Your task to perform on an android device: delete a single message in the gmail app Image 0: 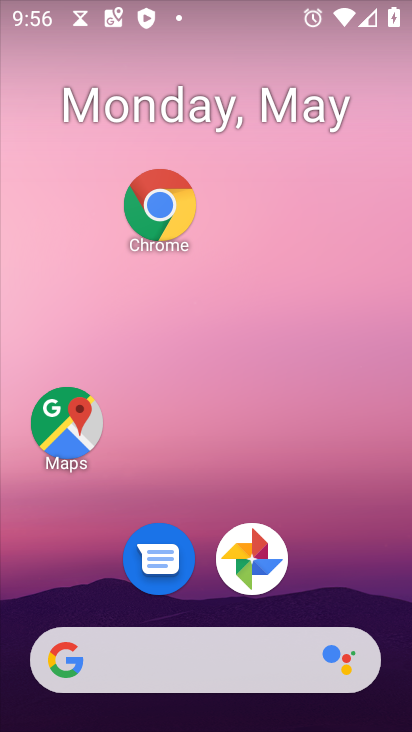
Step 0: drag from (273, 720) to (226, 58)
Your task to perform on an android device: delete a single message in the gmail app Image 1: 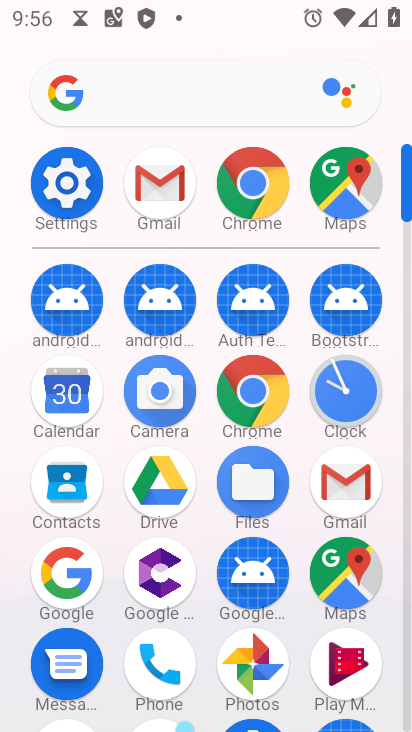
Step 1: click (345, 478)
Your task to perform on an android device: delete a single message in the gmail app Image 2: 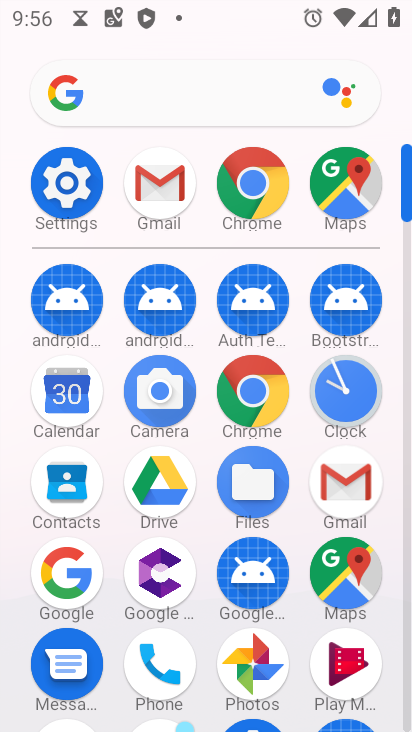
Step 2: click (345, 478)
Your task to perform on an android device: delete a single message in the gmail app Image 3: 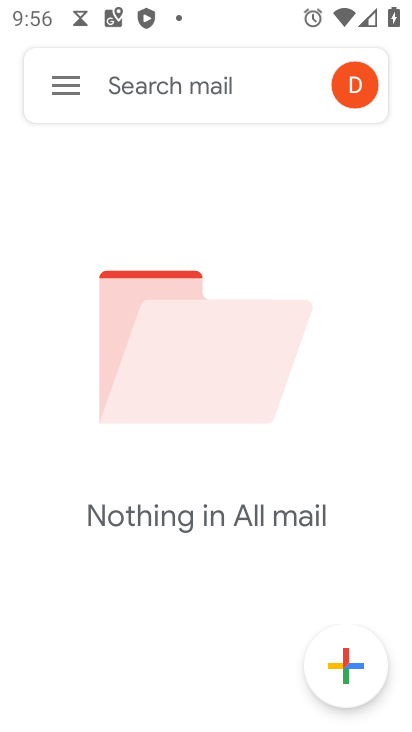
Step 3: press home button
Your task to perform on an android device: delete a single message in the gmail app Image 4: 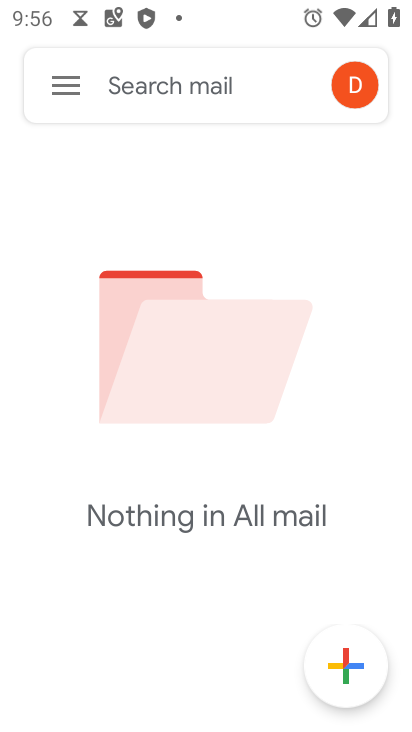
Step 4: press home button
Your task to perform on an android device: delete a single message in the gmail app Image 5: 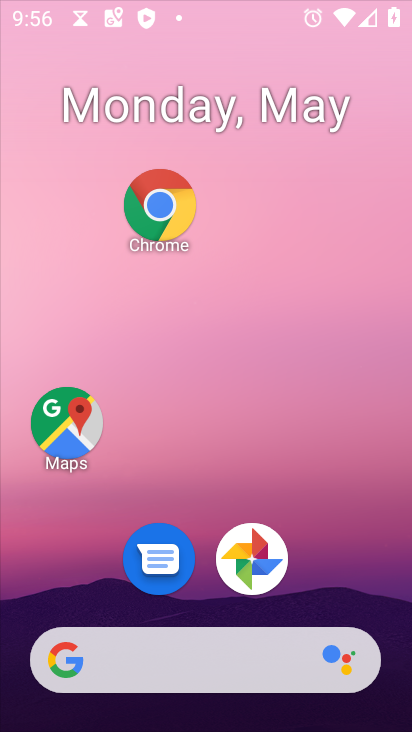
Step 5: press home button
Your task to perform on an android device: delete a single message in the gmail app Image 6: 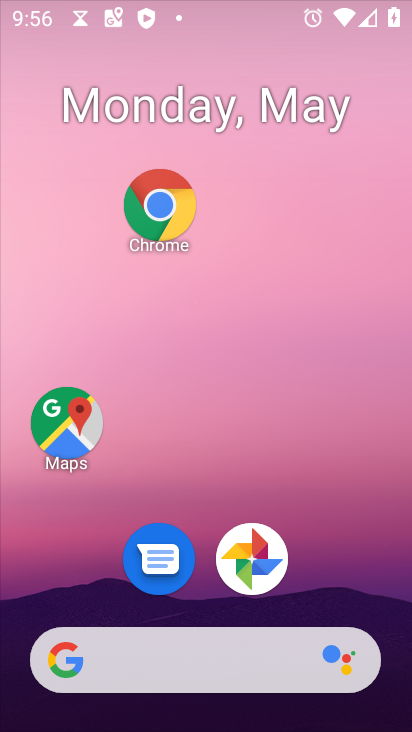
Step 6: press home button
Your task to perform on an android device: delete a single message in the gmail app Image 7: 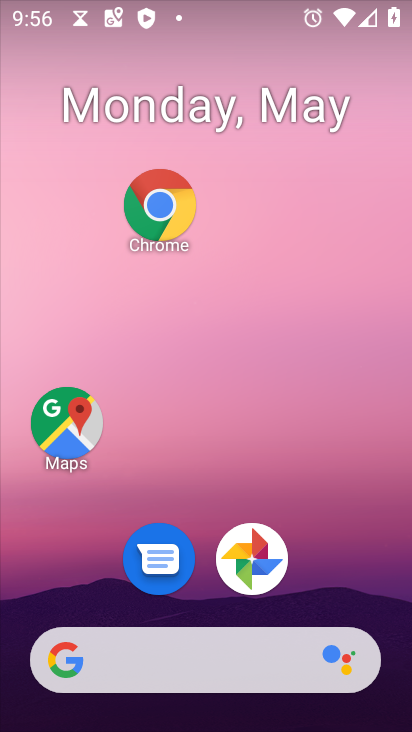
Step 7: press home button
Your task to perform on an android device: delete a single message in the gmail app Image 8: 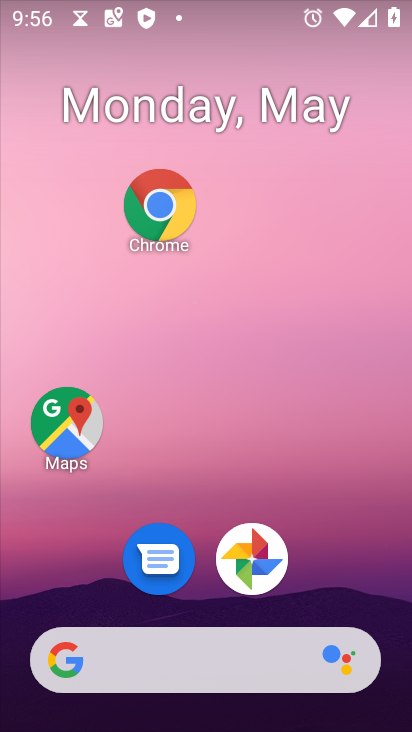
Step 8: drag from (262, 707) to (258, 389)
Your task to perform on an android device: delete a single message in the gmail app Image 9: 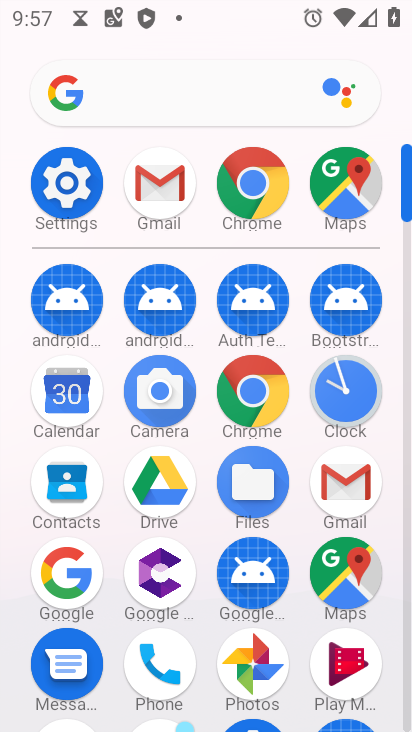
Step 9: click (354, 493)
Your task to perform on an android device: delete a single message in the gmail app Image 10: 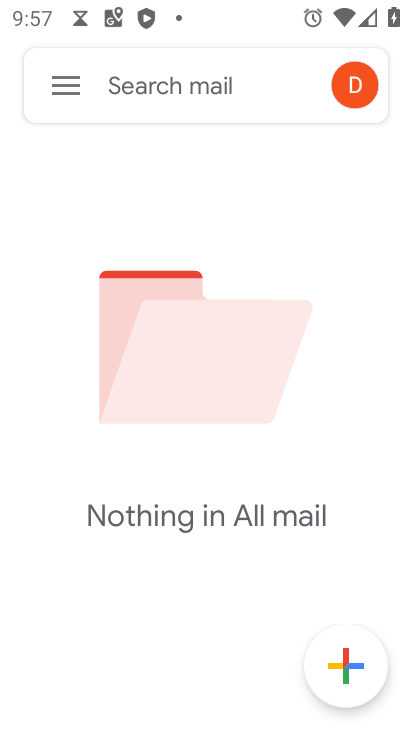
Step 10: press back button
Your task to perform on an android device: delete a single message in the gmail app Image 11: 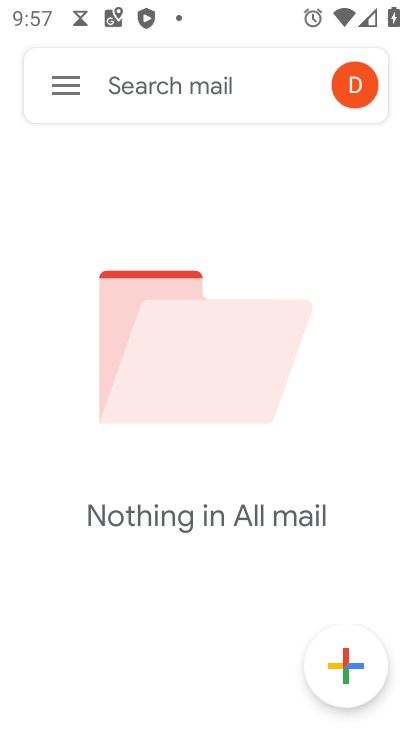
Step 11: press back button
Your task to perform on an android device: delete a single message in the gmail app Image 12: 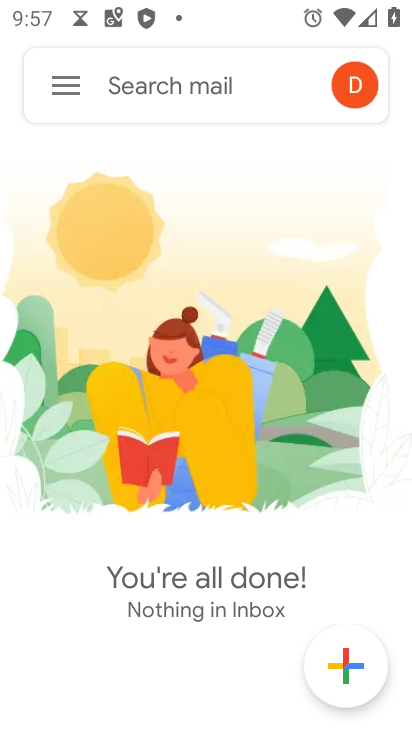
Step 12: press back button
Your task to perform on an android device: delete a single message in the gmail app Image 13: 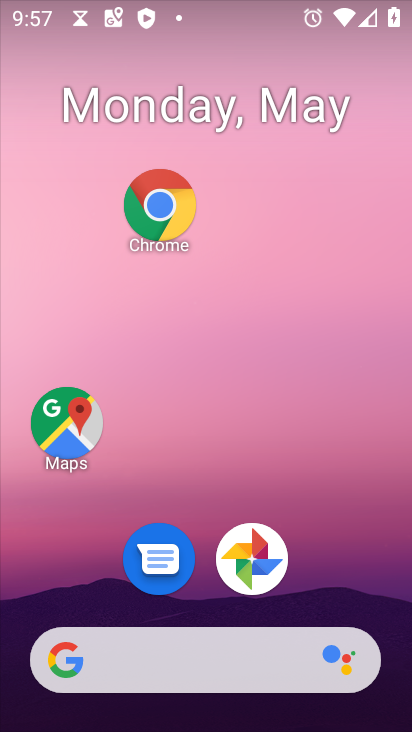
Step 13: drag from (224, 581) to (101, 107)
Your task to perform on an android device: delete a single message in the gmail app Image 14: 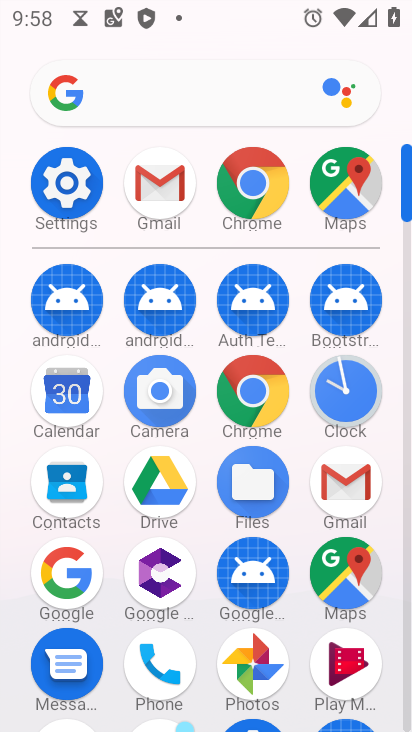
Step 14: click (329, 489)
Your task to perform on an android device: delete a single message in the gmail app Image 15: 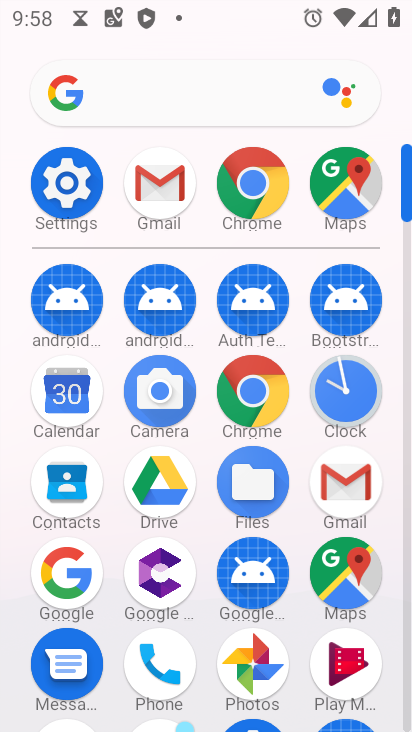
Step 15: click (328, 488)
Your task to perform on an android device: delete a single message in the gmail app Image 16: 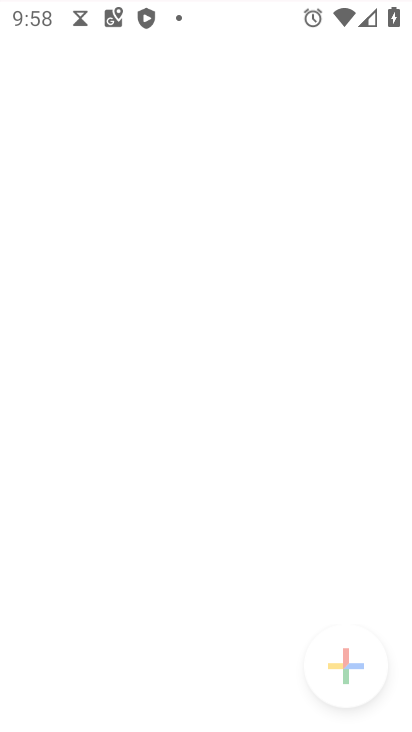
Step 16: click (327, 484)
Your task to perform on an android device: delete a single message in the gmail app Image 17: 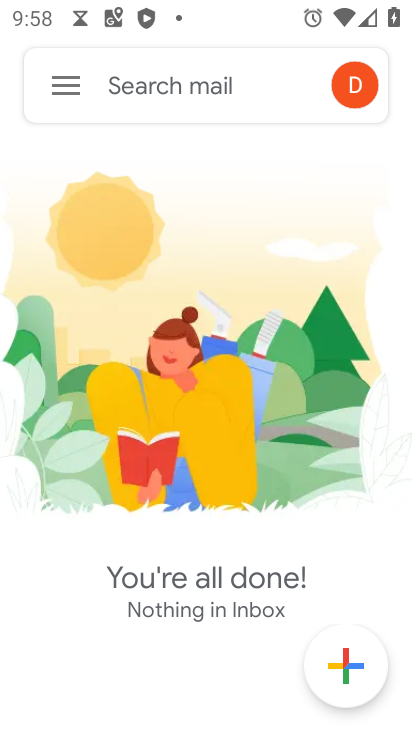
Step 17: click (73, 89)
Your task to perform on an android device: delete a single message in the gmail app Image 18: 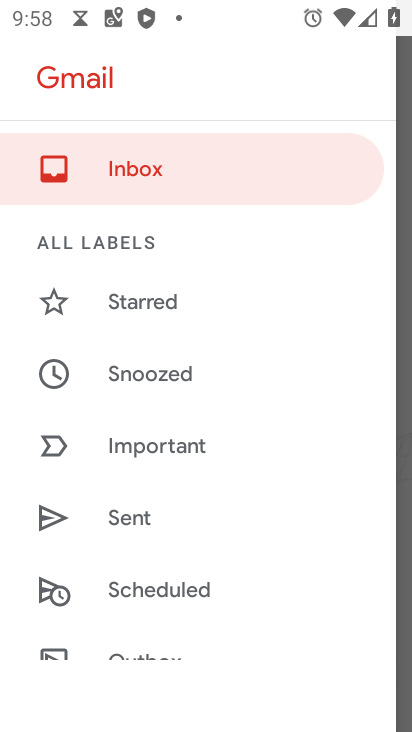
Step 18: drag from (139, 486) to (117, 102)
Your task to perform on an android device: delete a single message in the gmail app Image 19: 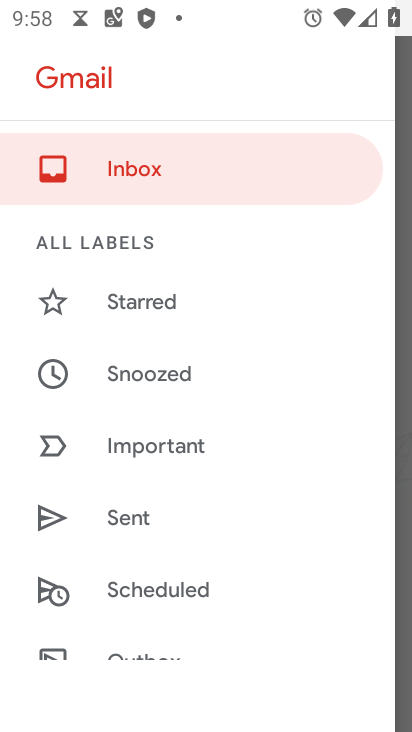
Step 19: drag from (189, 430) to (158, 115)
Your task to perform on an android device: delete a single message in the gmail app Image 20: 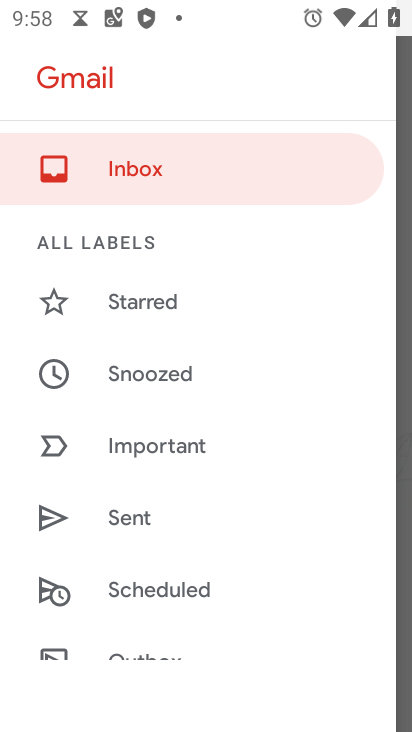
Step 20: drag from (161, 341) to (157, 216)
Your task to perform on an android device: delete a single message in the gmail app Image 21: 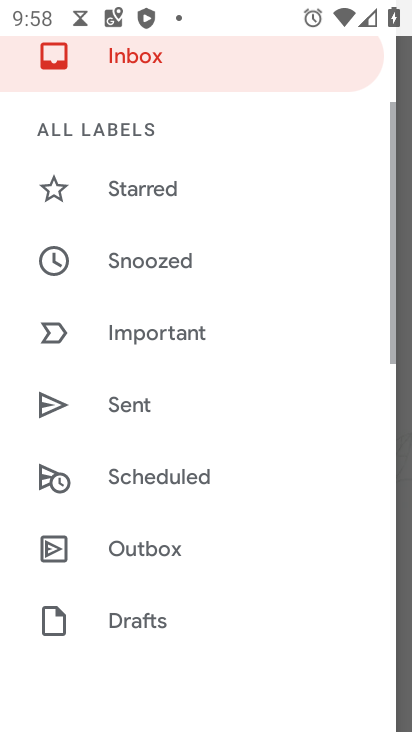
Step 21: drag from (184, 442) to (172, 17)
Your task to perform on an android device: delete a single message in the gmail app Image 22: 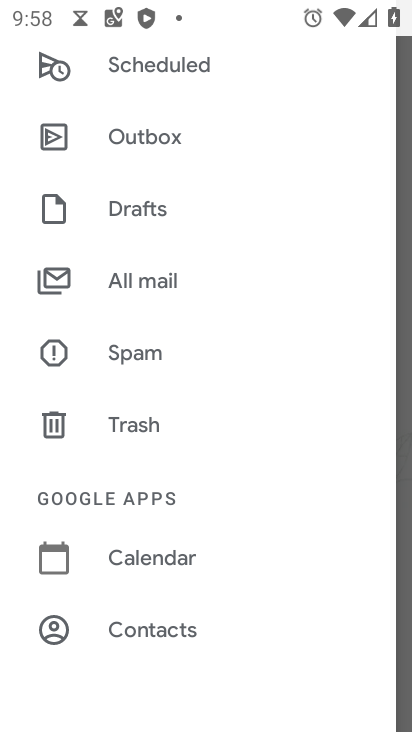
Step 22: drag from (147, 406) to (128, 119)
Your task to perform on an android device: delete a single message in the gmail app Image 23: 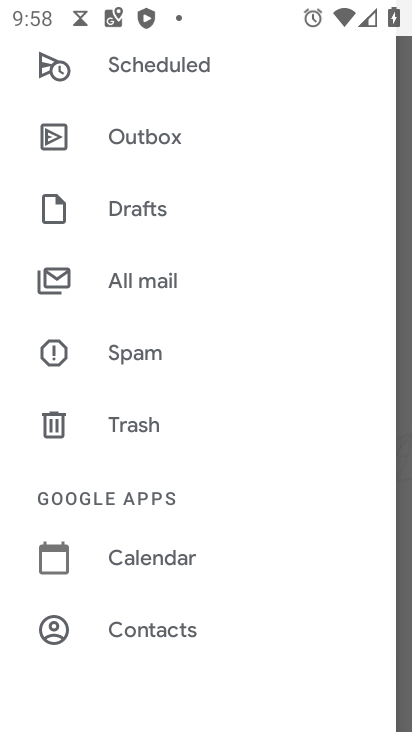
Step 23: drag from (139, 346) to (132, 63)
Your task to perform on an android device: delete a single message in the gmail app Image 24: 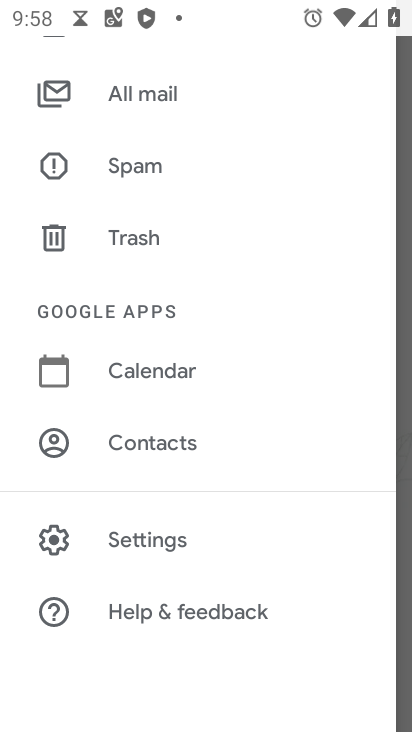
Step 24: click (130, 99)
Your task to perform on an android device: delete a single message in the gmail app Image 25: 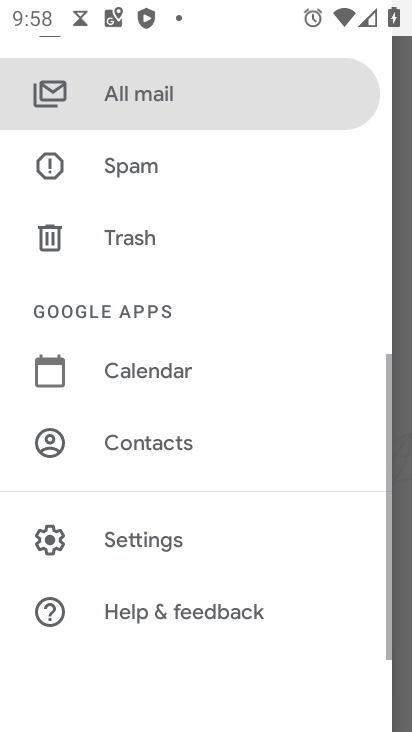
Step 25: click (129, 96)
Your task to perform on an android device: delete a single message in the gmail app Image 26: 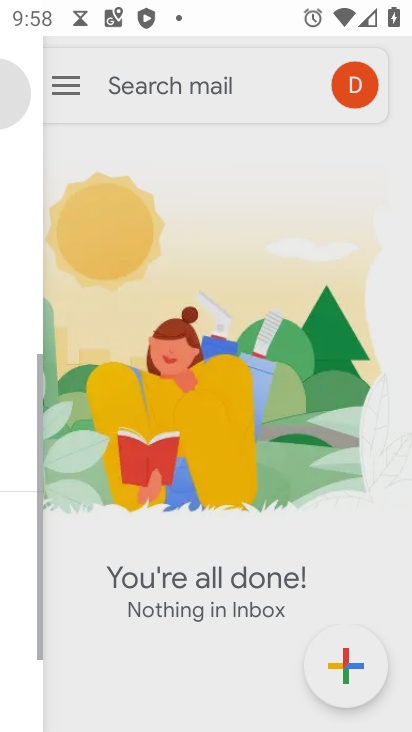
Step 26: click (128, 95)
Your task to perform on an android device: delete a single message in the gmail app Image 27: 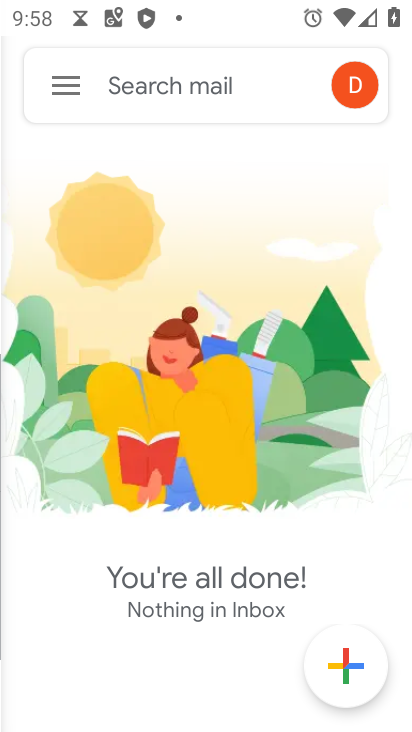
Step 27: click (128, 95)
Your task to perform on an android device: delete a single message in the gmail app Image 28: 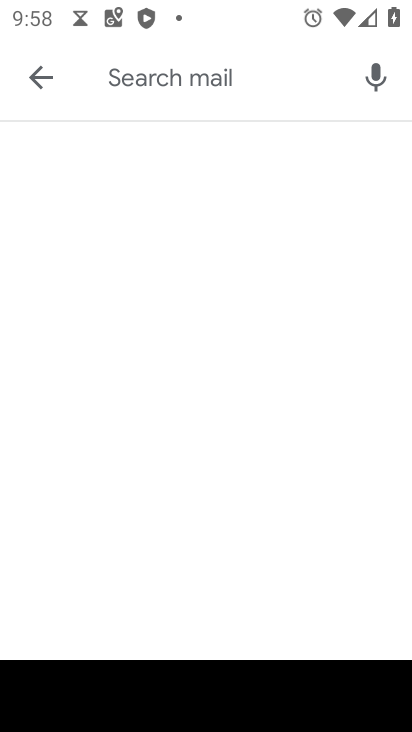
Step 28: task complete